Your task to perform on an android device: find which apps use the phone's location Image 0: 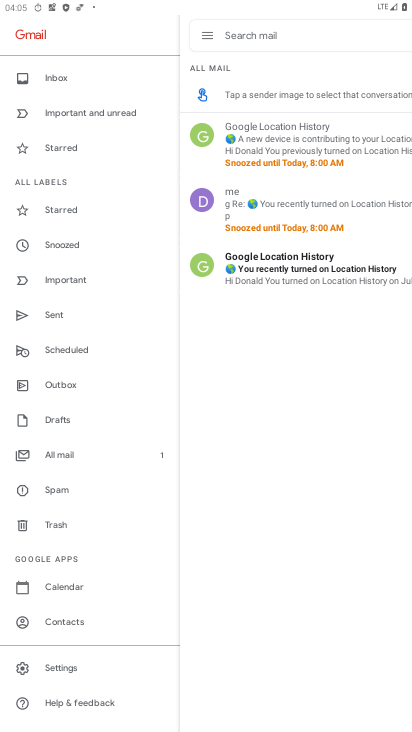
Step 0: press home button
Your task to perform on an android device: find which apps use the phone's location Image 1: 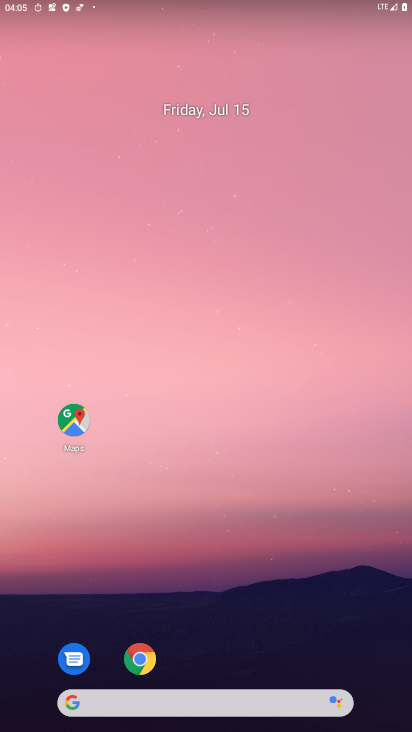
Step 1: drag from (256, 602) to (256, 93)
Your task to perform on an android device: find which apps use the phone's location Image 2: 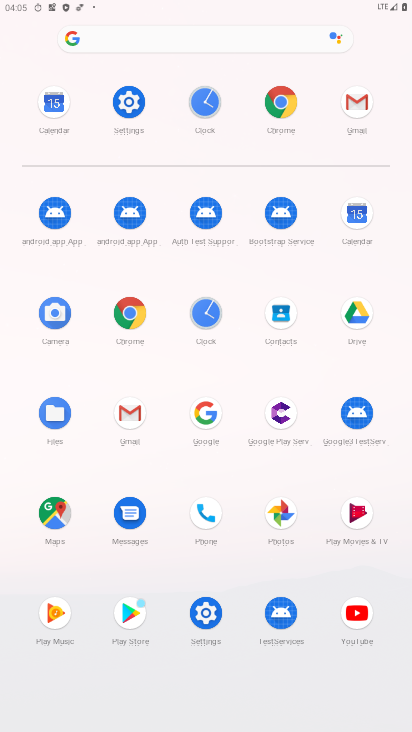
Step 2: click (203, 607)
Your task to perform on an android device: find which apps use the phone's location Image 3: 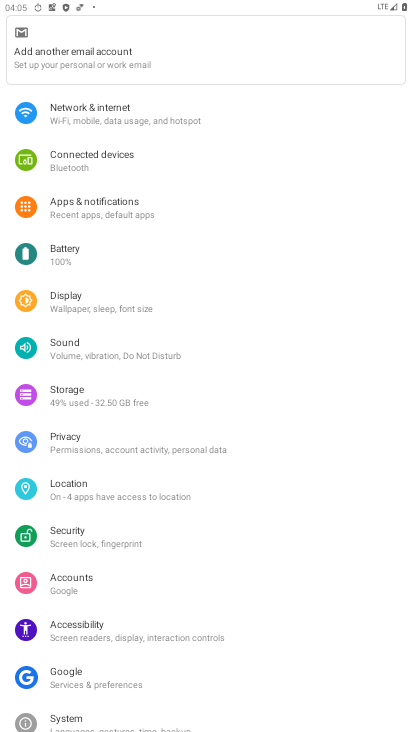
Step 3: click (68, 491)
Your task to perform on an android device: find which apps use the phone's location Image 4: 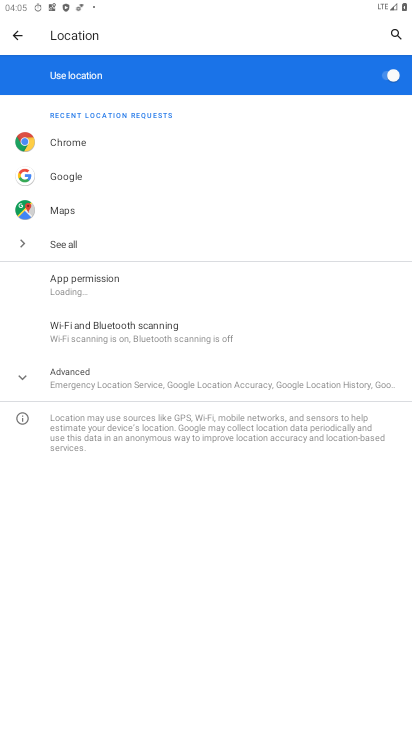
Step 4: click (97, 285)
Your task to perform on an android device: find which apps use the phone's location Image 5: 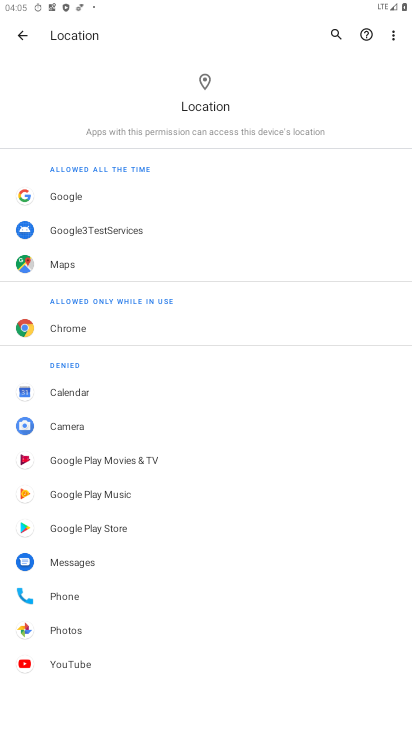
Step 5: task complete